Your task to perform on an android device: Open settings on Google Maps Image 0: 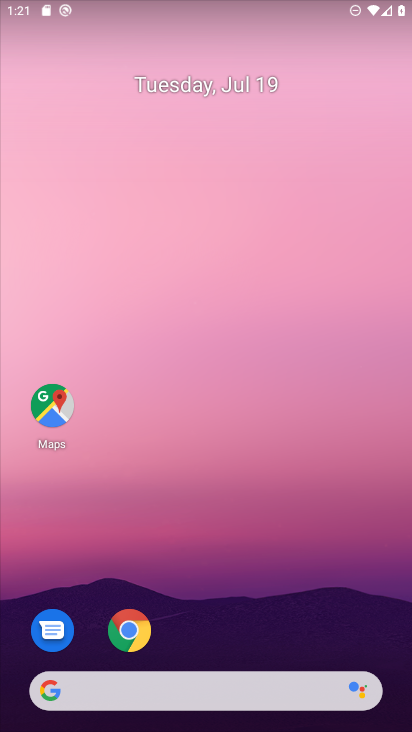
Step 0: drag from (206, 692) to (332, 146)
Your task to perform on an android device: Open settings on Google Maps Image 1: 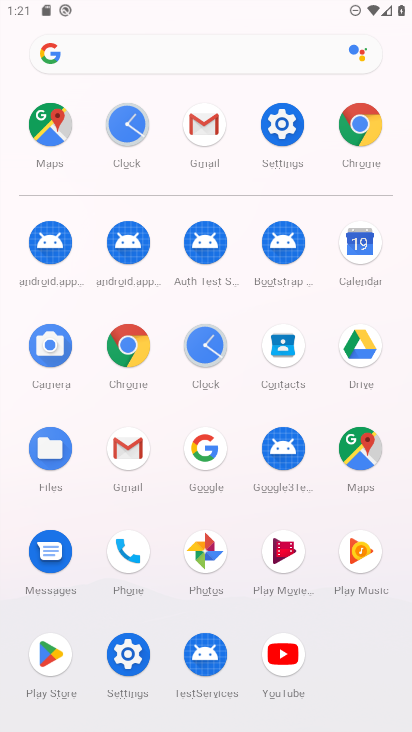
Step 1: click (362, 453)
Your task to perform on an android device: Open settings on Google Maps Image 2: 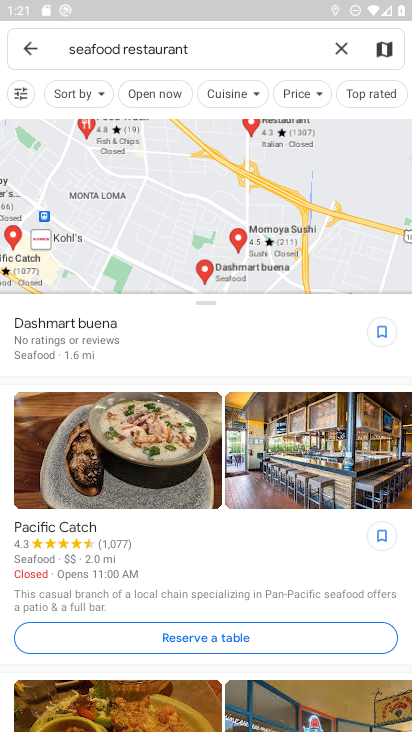
Step 2: click (31, 53)
Your task to perform on an android device: Open settings on Google Maps Image 3: 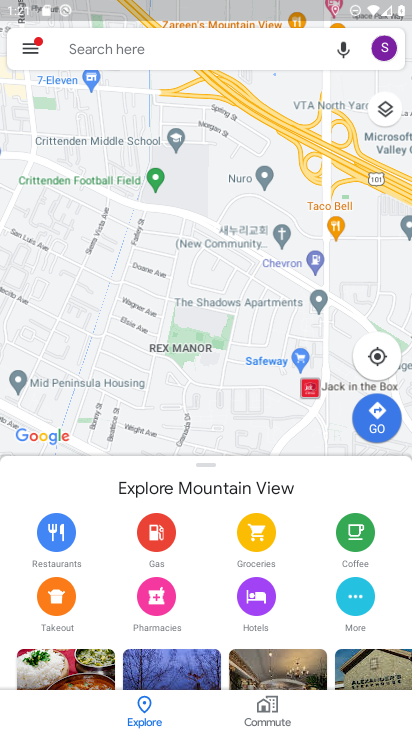
Step 3: task complete